Your task to perform on an android device: Open location settings Image 0: 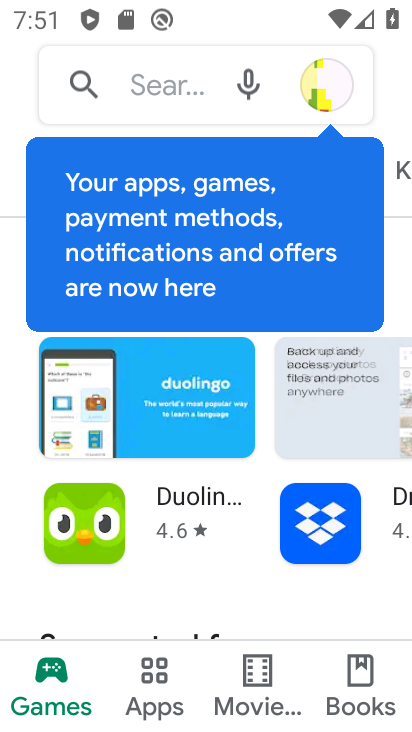
Step 0: press home button
Your task to perform on an android device: Open location settings Image 1: 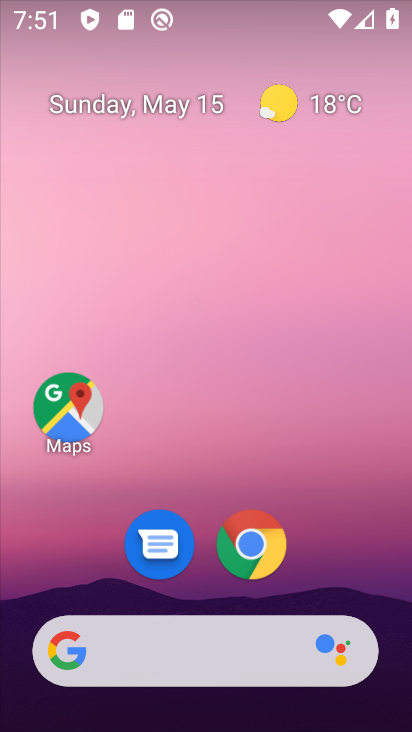
Step 1: drag from (177, 484) to (204, 10)
Your task to perform on an android device: Open location settings Image 2: 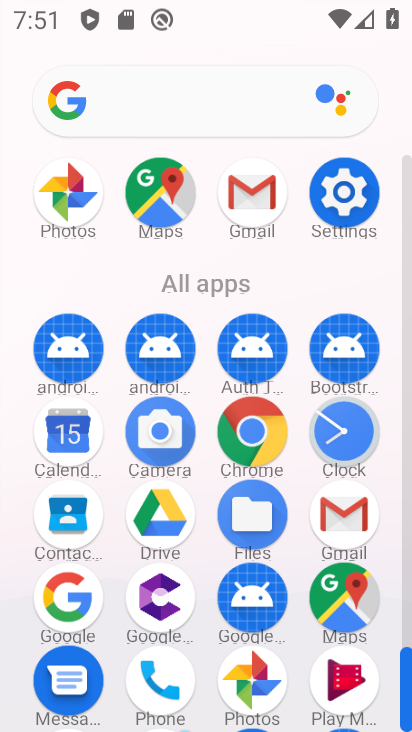
Step 2: click (346, 195)
Your task to perform on an android device: Open location settings Image 3: 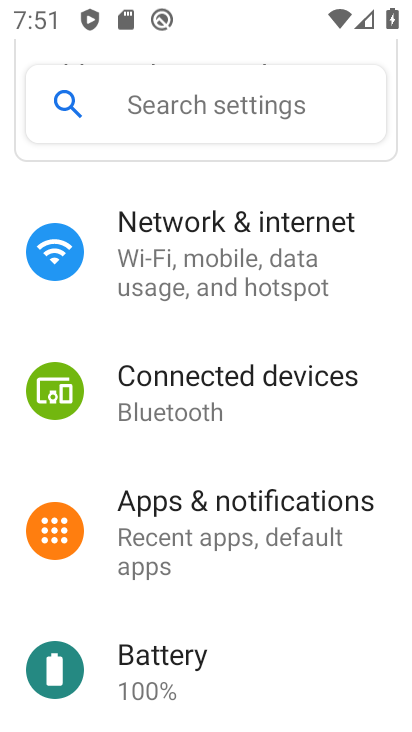
Step 3: drag from (285, 573) to (323, 127)
Your task to perform on an android device: Open location settings Image 4: 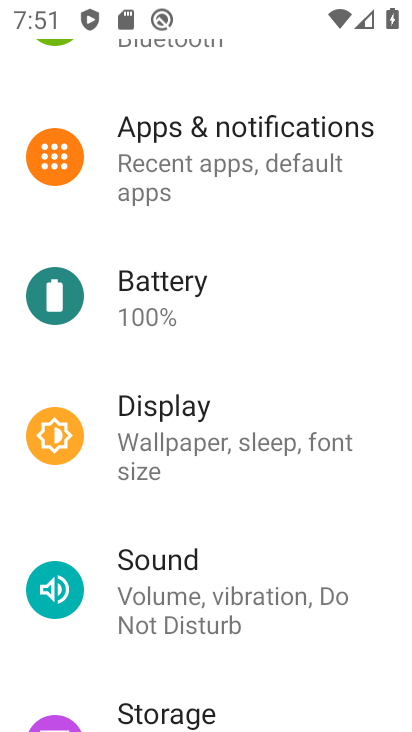
Step 4: drag from (296, 497) to (325, 38)
Your task to perform on an android device: Open location settings Image 5: 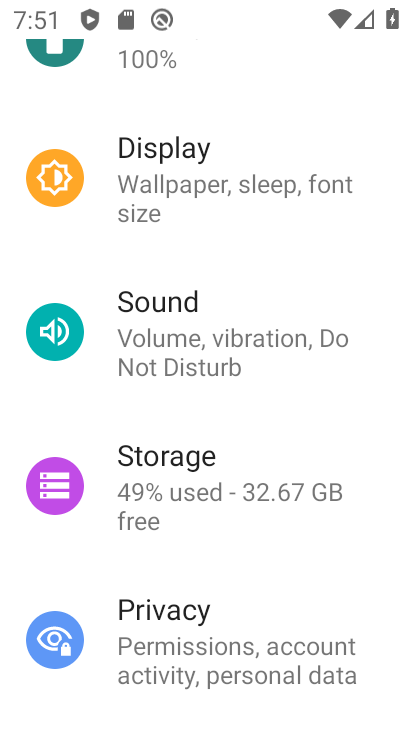
Step 5: drag from (269, 511) to (308, 85)
Your task to perform on an android device: Open location settings Image 6: 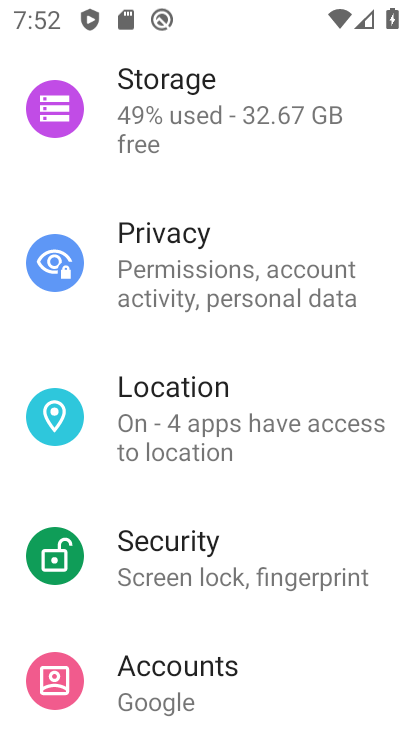
Step 6: click (255, 399)
Your task to perform on an android device: Open location settings Image 7: 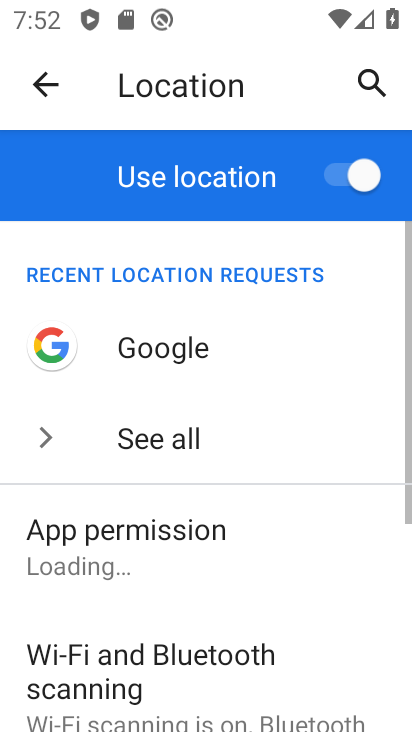
Step 7: task complete